Your task to perform on an android device: Clear the shopping cart on ebay. Search for logitech g pro on ebay, select the first entry, and add it to the cart. Image 0: 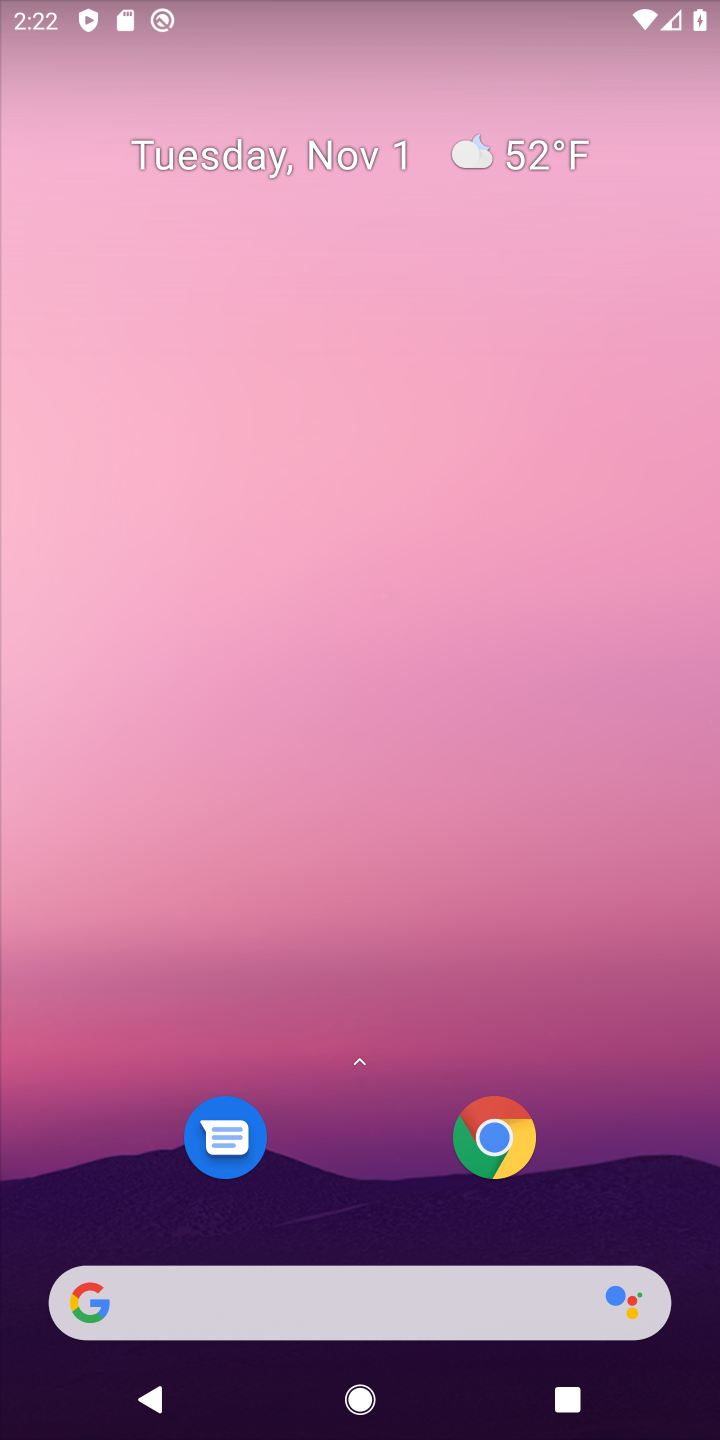
Step 0: click (399, 1297)
Your task to perform on an android device: Clear the shopping cart on ebay. Search for logitech g pro on ebay, select the first entry, and add it to the cart. Image 1: 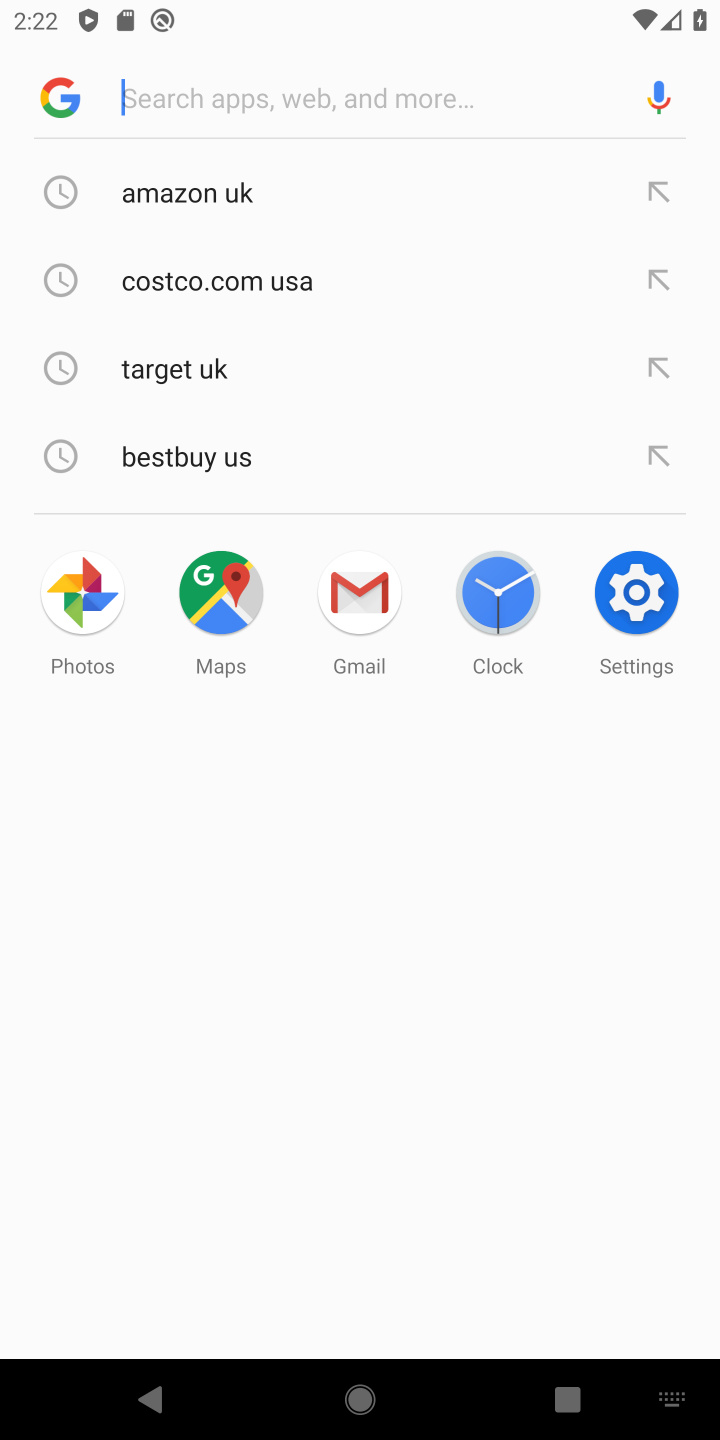
Step 1: type "ebay"
Your task to perform on an android device: Clear the shopping cart on ebay. Search for logitech g pro on ebay, select the first entry, and add it to the cart. Image 2: 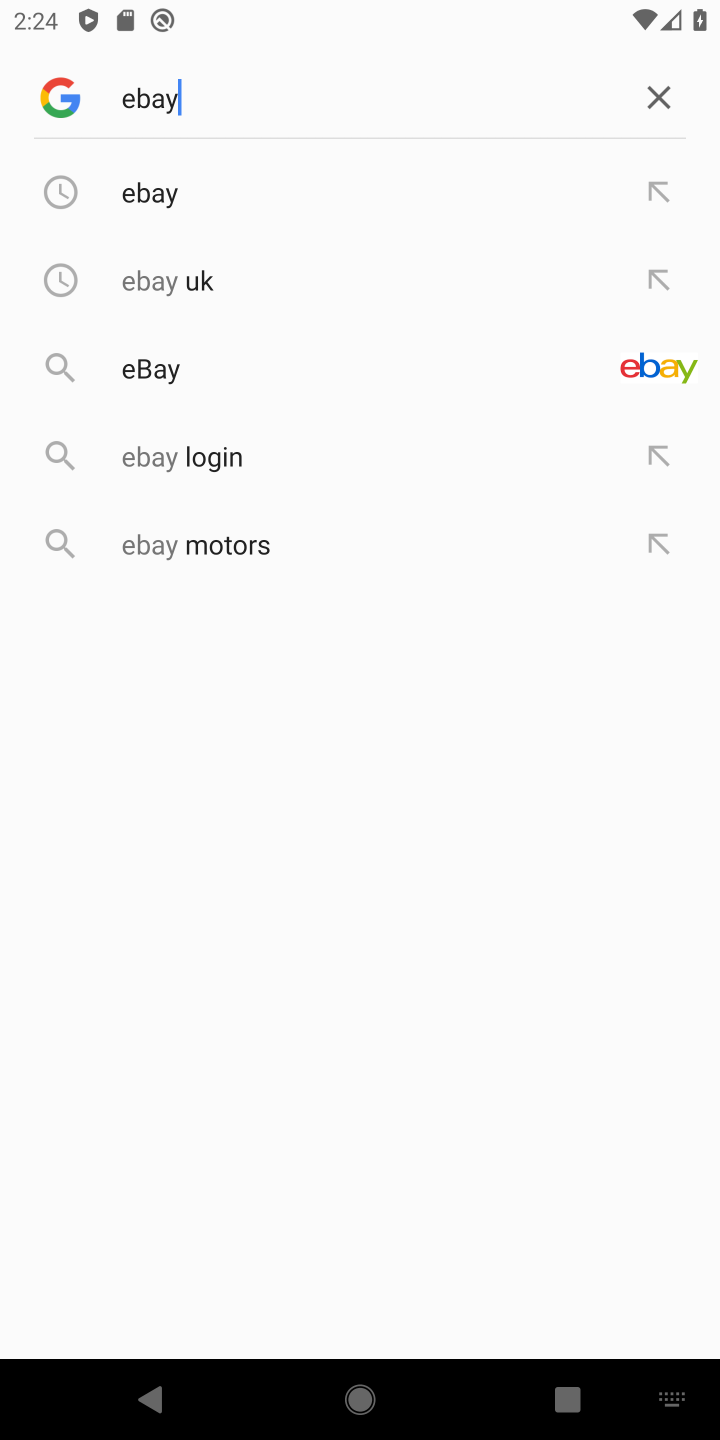
Step 2: click (578, 196)
Your task to perform on an android device: Clear the shopping cart on ebay. Search for logitech g pro on ebay, select the first entry, and add it to the cart. Image 3: 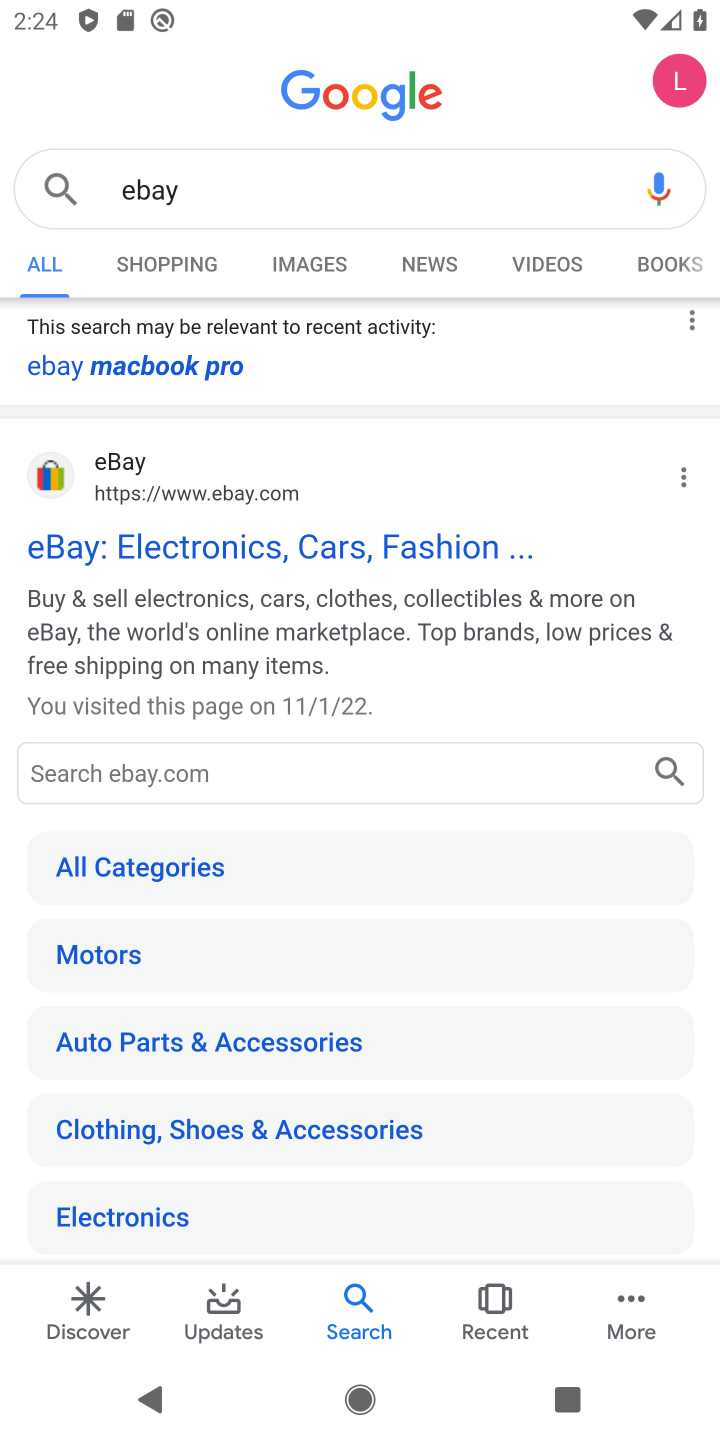
Step 3: click (106, 520)
Your task to perform on an android device: Clear the shopping cart on ebay. Search for logitech g pro on ebay, select the first entry, and add it to the cart. Image 4: 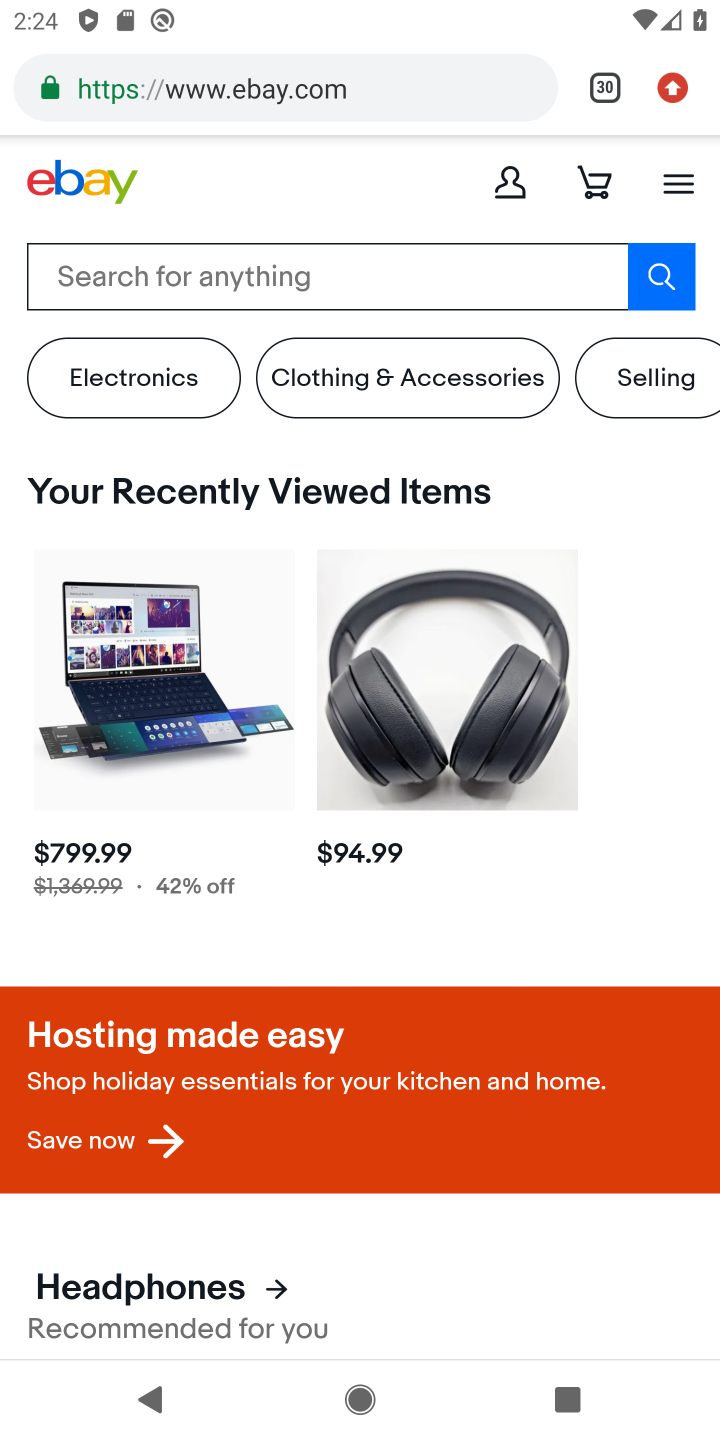
Step 4: click (279, 305)
Your task to perform on an android device: Clear the shopping cart on ebay. Search for logitech g pro on ebay, select the first entry, and add it to the cart. Image 5: 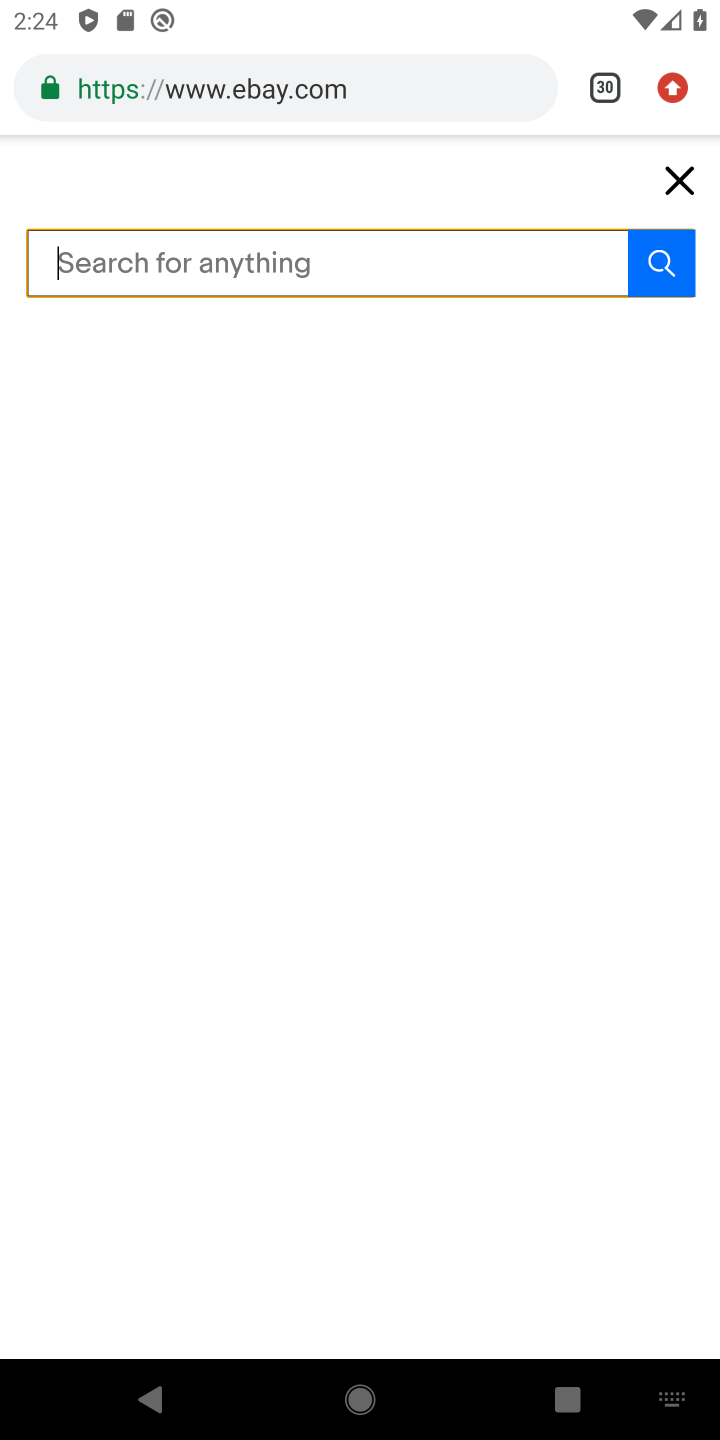
Step 5: type "logitech g"
Your task to perform on an android device: Clear the shopping cart on ebay. Search for logitech g pro on ebay, select the first entry, and add it to the cart. Image 6: 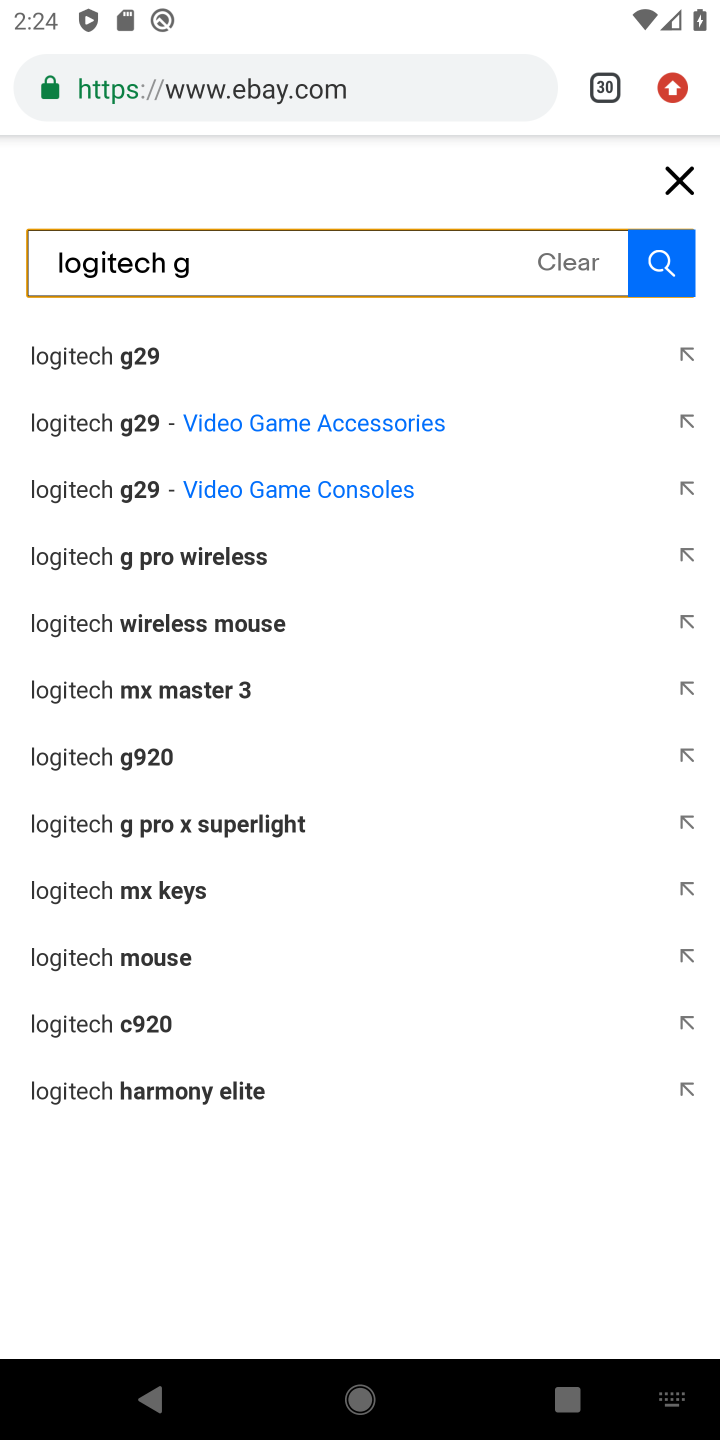
Step 6: click (234, 351)
Your task to perform on an android device: Clear the shopping cart on ebay. Search for logitech g pro on ebay, select the first entry, and add it to the cart. Image 7: 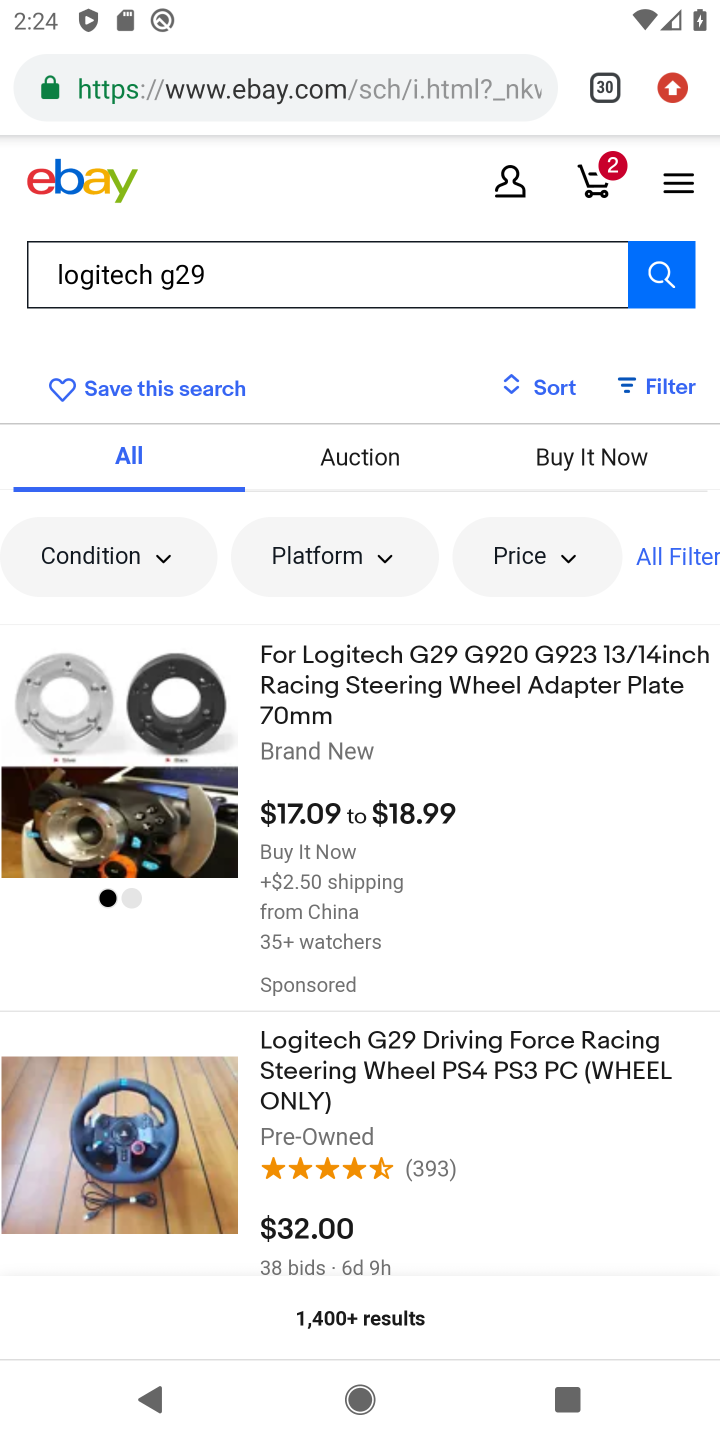
Step 7: click (138, 870)
Your task to perform on an android device: Clear the shopping cart on ebay. Search for logitech g pro on ebay, select the first entry, and add it to the cart. Image 8: 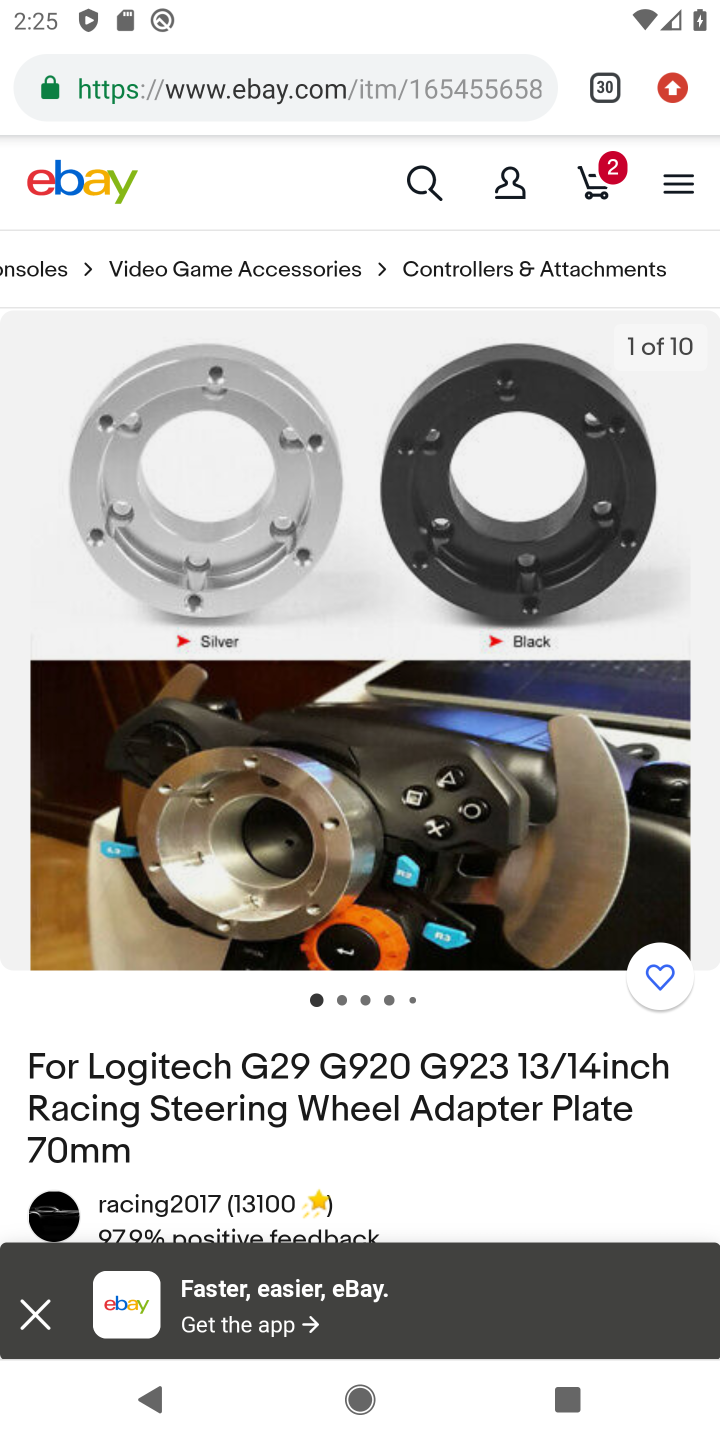
Step 8: task complete